Your task to perform on an android device: Open location settings Image 0: 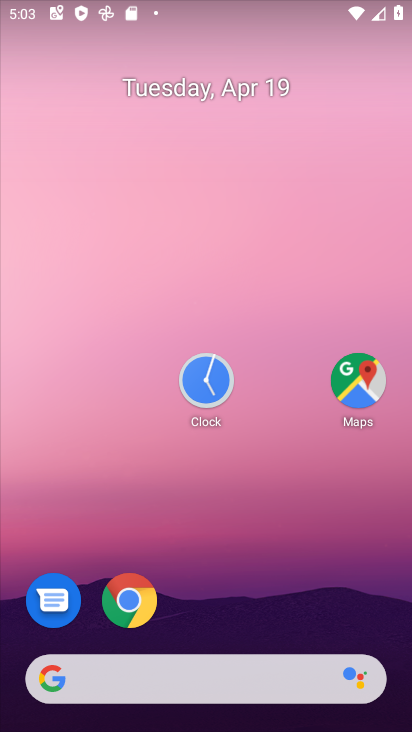
Step 0: drag from (233, 383) to (184, 185)
Your task to perform on an android device: Open location settings Image 1: 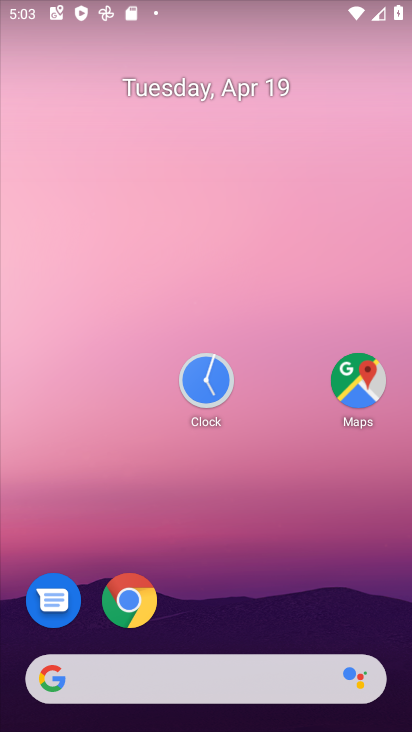
Step 1: click (166, 156)
Your task to perform on an android device: Open location settings Image 2: 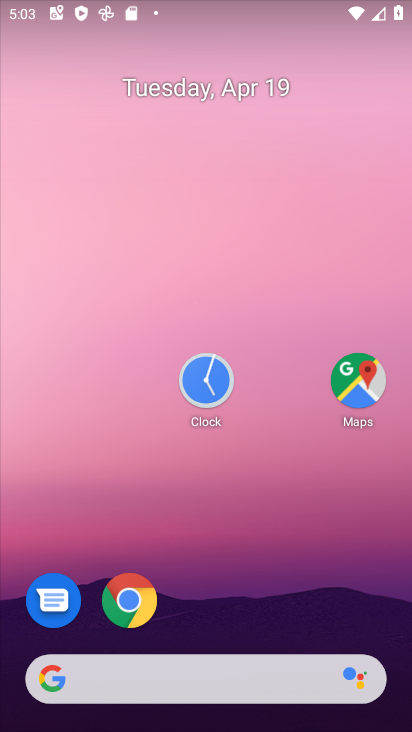
Step 2: drag from (242, 546) to (185, 75)
Your task to perform on an android device: Open location settings Image 3: 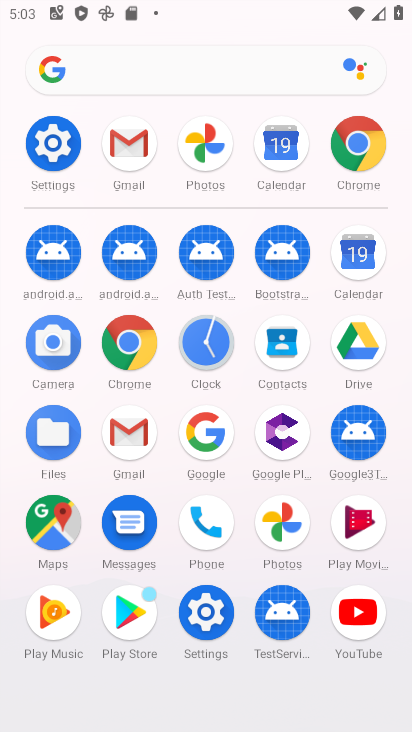
Step 3: drag from (227, 273) to (227, 117)
Your task to perform on an android device: Open location settings Image 4: 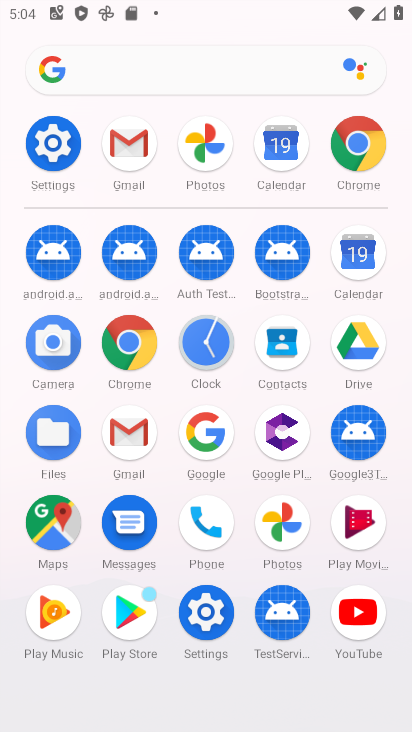
Step 4: click (49, 142)
Your task to perform on an android device: Open location settings Image 5: 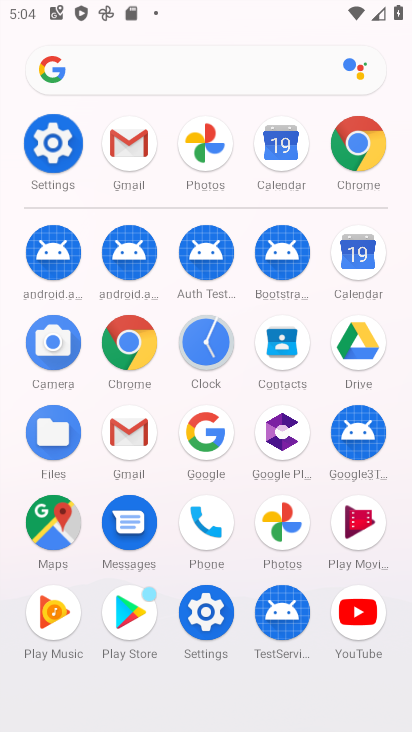
Step 5: click (49, 142)
Your task to perform on an android device: Open location settings Image 6: 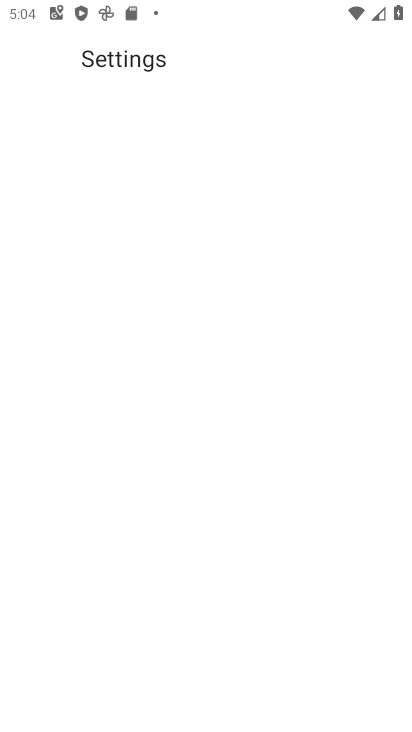
Step 6: click (49, 142)
Your task to perform on an android device: Open location settings Image 7: 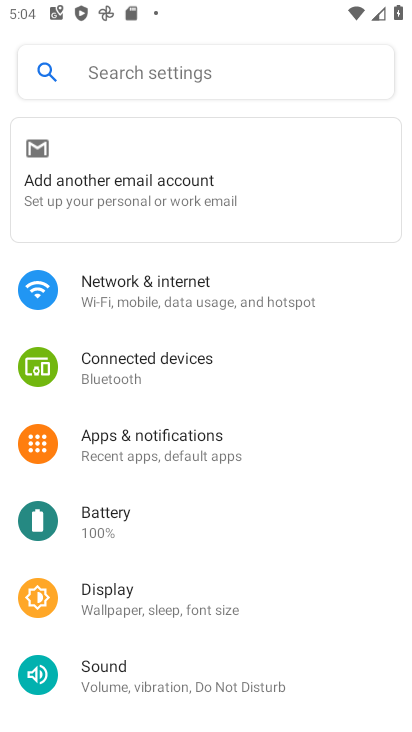
Step 7: drag from (190, 556) to (133, 169)
Your task to perform on an android device: Open location settings Image 8: 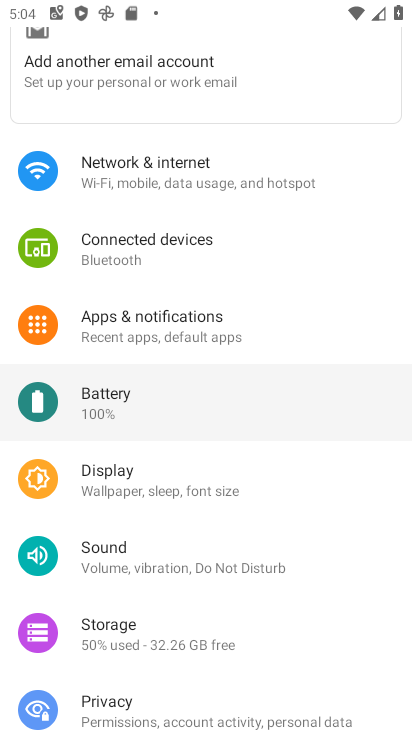
Step 8: click (155, 168)
Your task to perform on an android device: Open location settings Image 9: 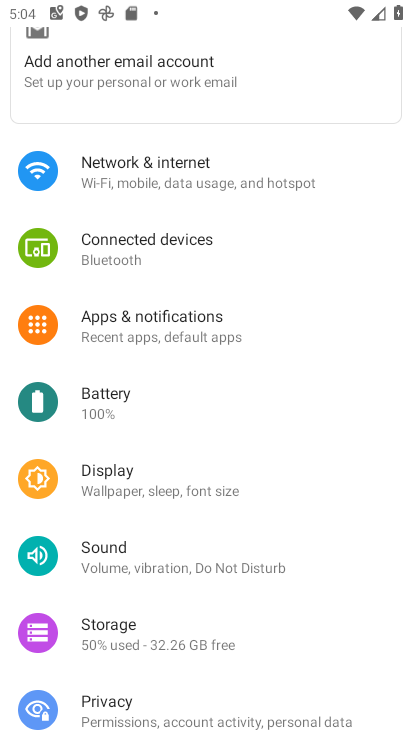
Step 9: drag from (177, 221) to (224, 232)
Your task to perform on an android device: Open location settings Image 10: 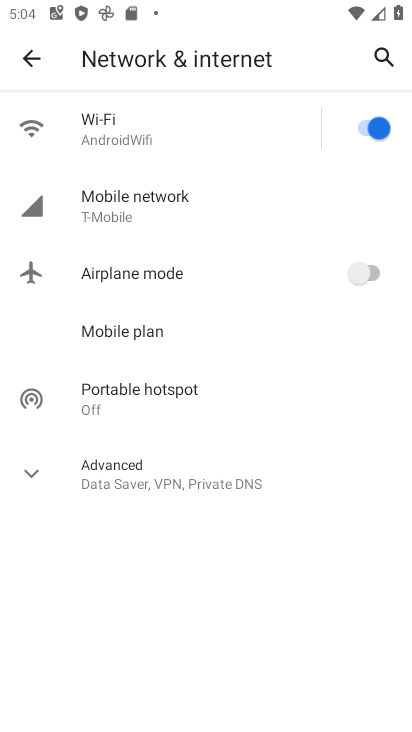
Step 10: drag from (125, 269) to (177, 211)
Your task to perform on an android device: Open location settings Image 11: 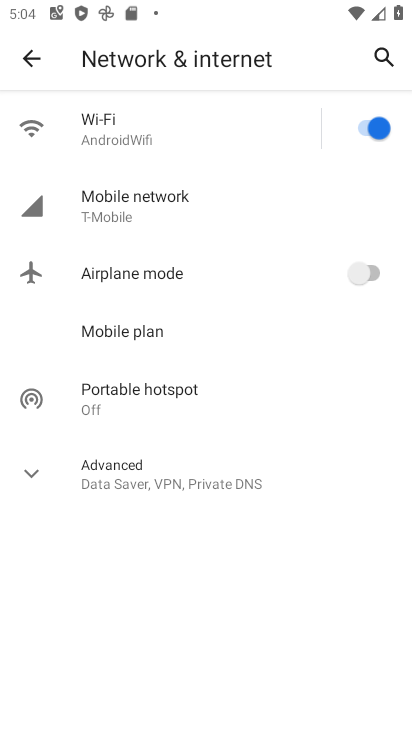
Step 11: click (21, 57)
Your task to perform on an android device: Open location settings Image 12: 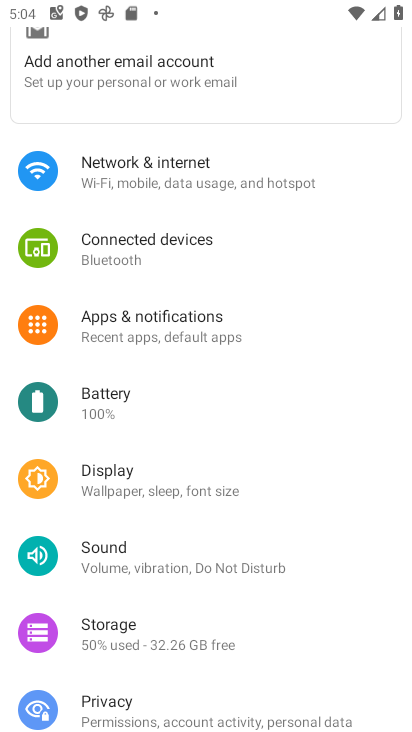
Step 12: drag from (188, 514) to (172, 153)
Your task to perform on an android device: Open location settings Image 13: 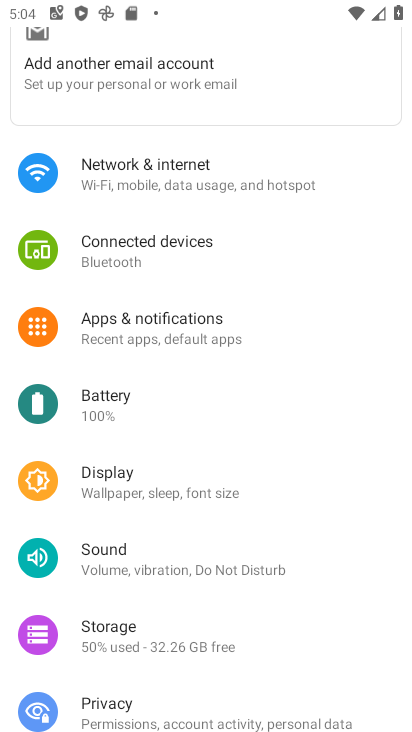
Step 13: drag from (230, 401) to (208, 153)
Your task to perform on an android device: Open location settings Image 14: 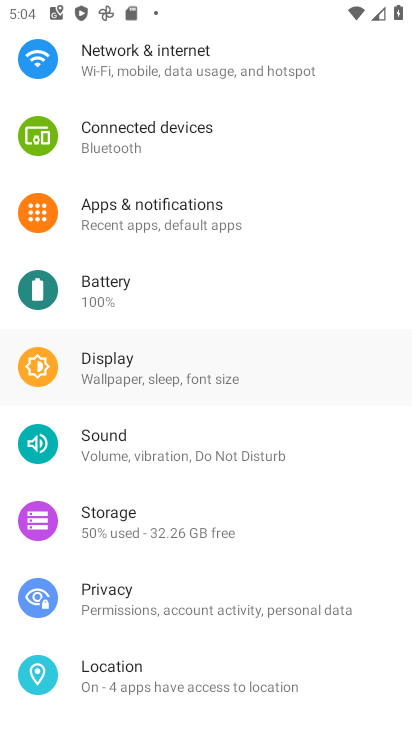
Step 14: drag from (220, 505) to (184, 139)
Your task to perform on an android device: Open location settings Image 15: 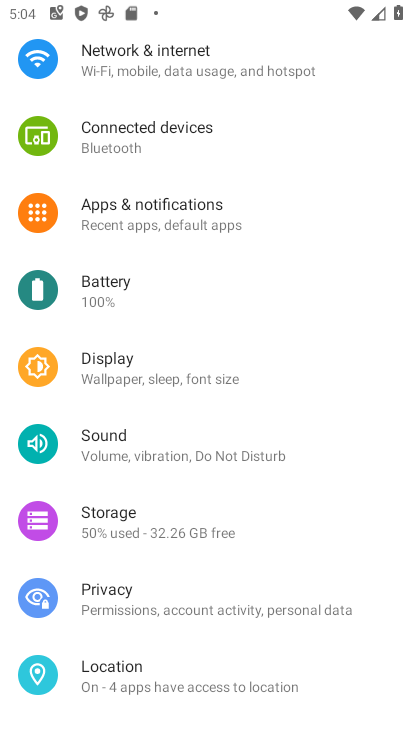
Step 15: click (139, 675)
Your task to perform on an android device: Open location settings Image 16: 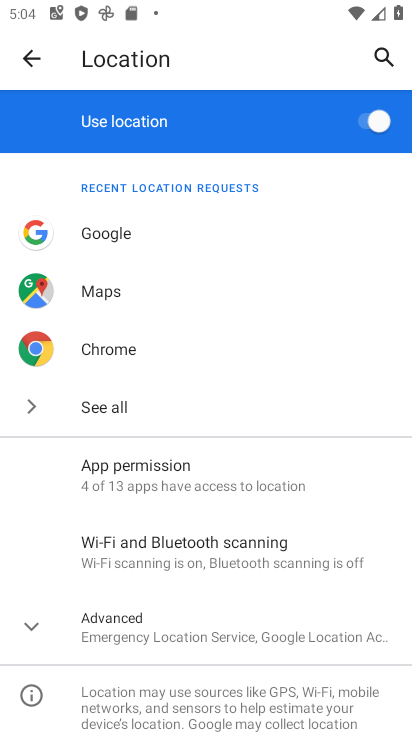
Step 16: task complete